Your task to perform on an android device: toggle improve location accuracy Image 0: 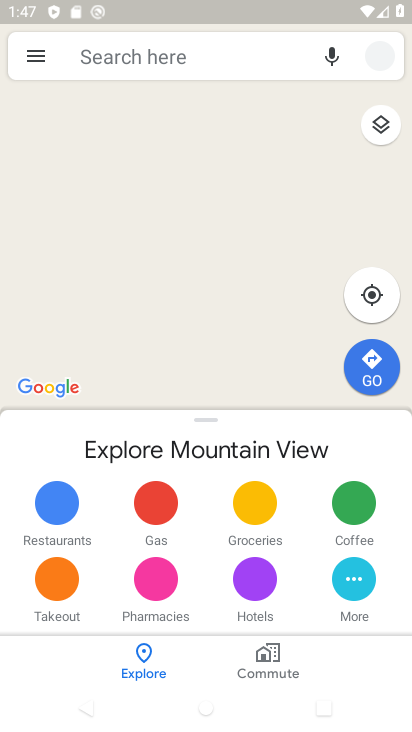
Step 0: press home button
Your task to perform on an android device: toggle improve location accuracy Image 1: 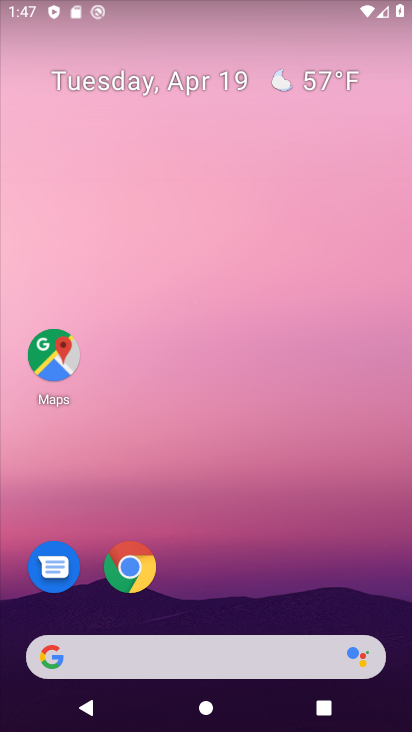
Step 1: drag from (210, 560) to (269, 159)
Your task to perform on an android device: toggle improve location accuracy Image 2: 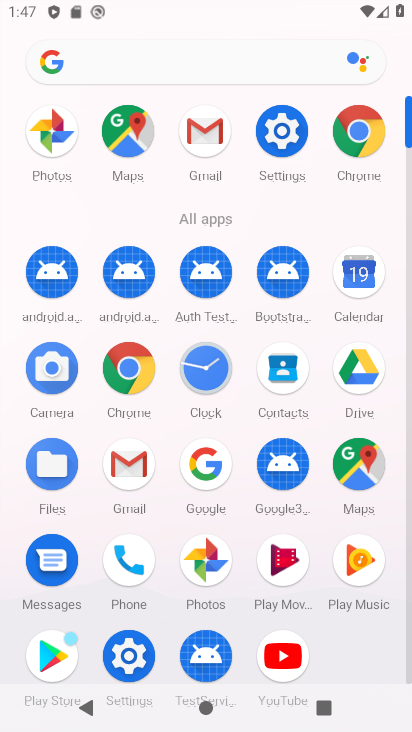
Step 2: click (282, 129)
Your task to perform on an android device: toggle improve location accuracy Image 3: 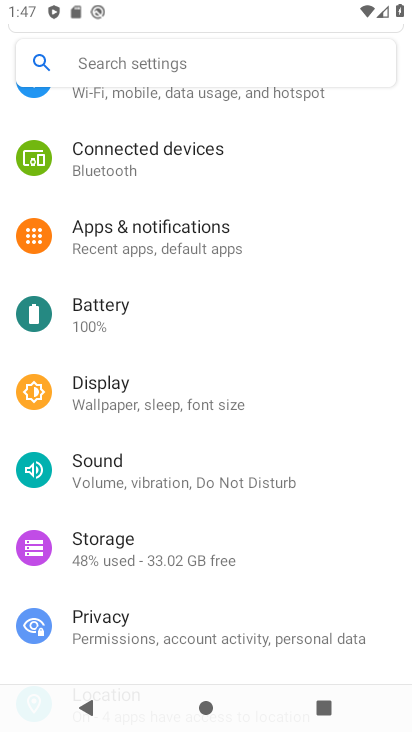
Step 3: drag from (222, 499) to (262, 142)
Your task to perform on an android device: toggle improve location accuracy Image 4: 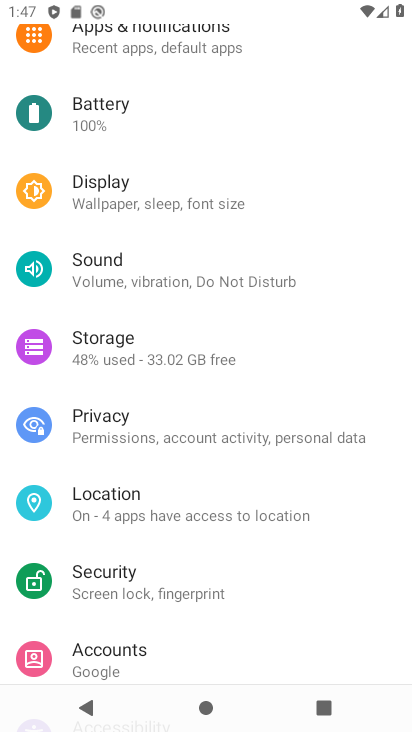
Step 4: click (173, 497)
Your task to perform on an android device: toggle improve location accuracy Image 5: 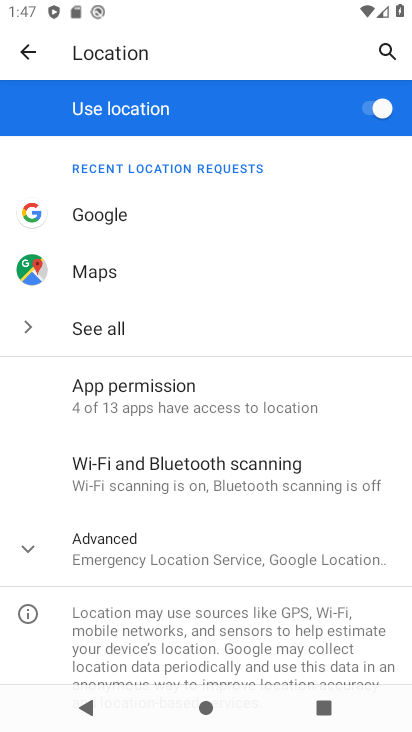
Step 5: drag from (212, 492) to (232, 333)
Your task to perform on an android device: toggle improve location accuracy Image 6: 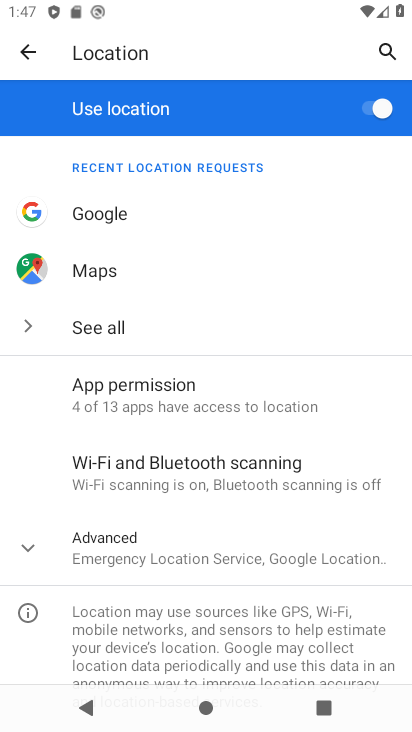
Step 6: click (158, 543)
Your task to perform on an android device: toggle improve location accuracy Image 7: 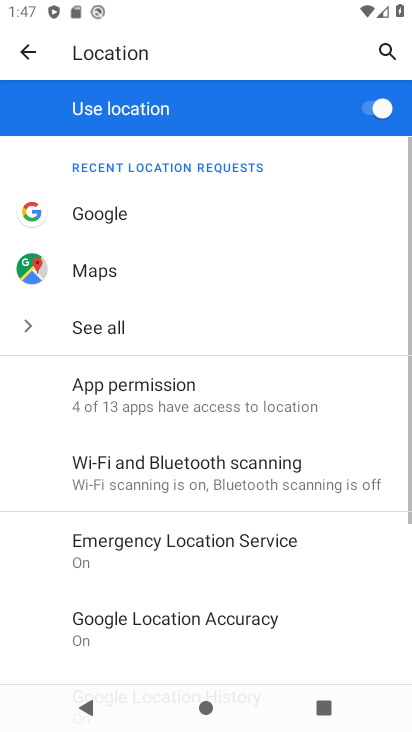
Step 7: drag from (303, 566) to (315, 411)
Your task to perform on an android device: toggle improve location accuracy Image 8: 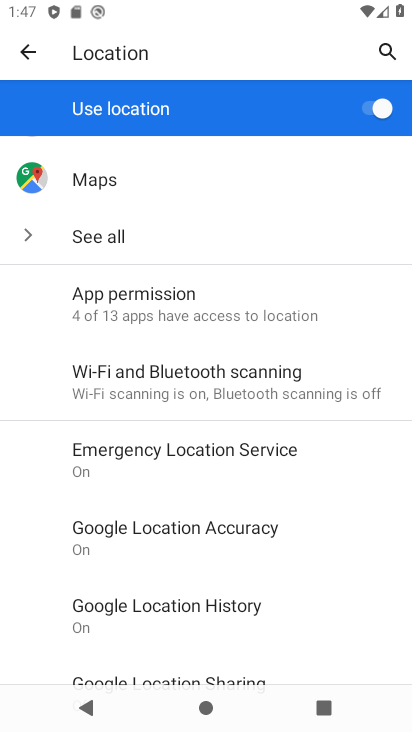
Step 8: click (146, 546)
Your task to perform on an android device: toggle improve location accuracy Image 9: 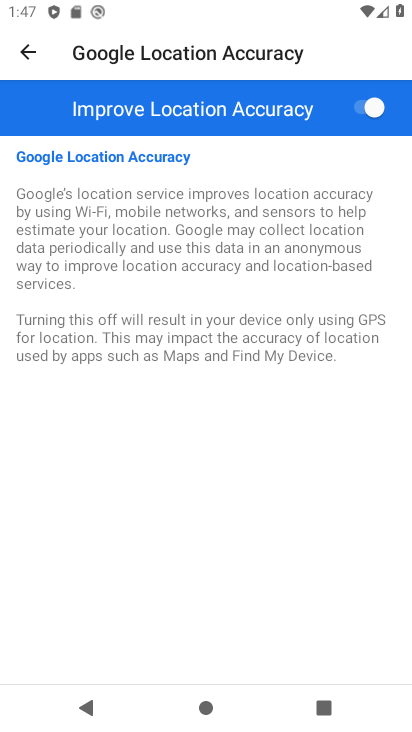
Step 9: click (380, 99)
Your task to perform on an android device: toggle improve location accuracy Image 10: 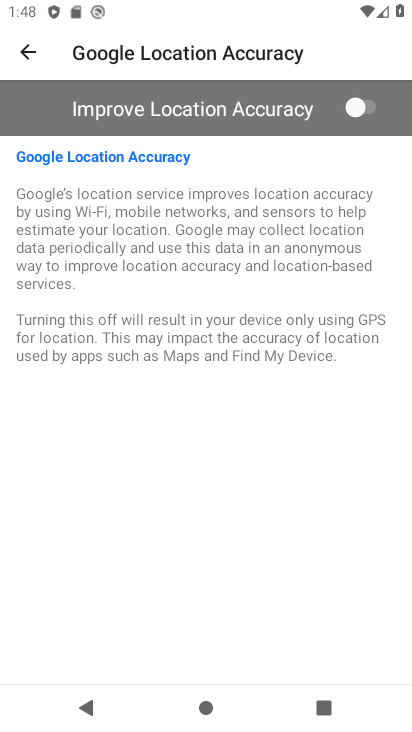
Step 10: task complete